Your task to perform on an android device: Open the calendar app, open the side menu, and click the "Day" option Image 0: 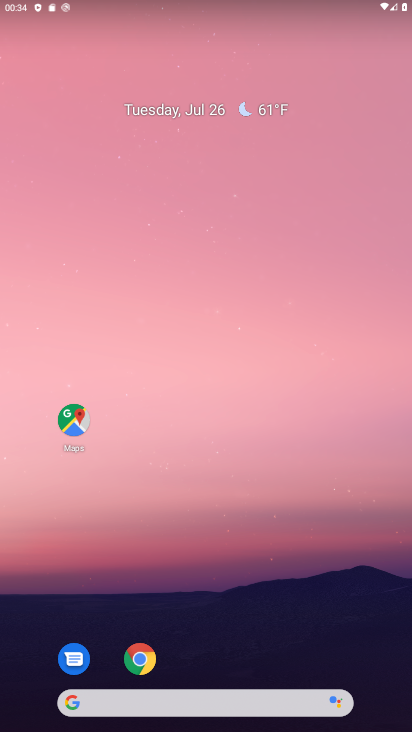
Step 0: drag from (244, 543) to (220, 49)
Your task to perform on an android device: Open the calendar app, open the side menu, and click the "Day" option Image 1: 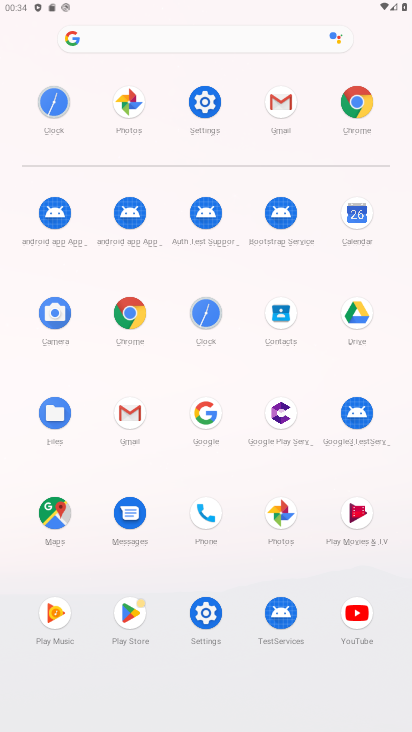
Step 1: click (361, 200)
Your task to perform on an android device: Open the calendar app, open the side menu, and click the "Day" option Image 2: 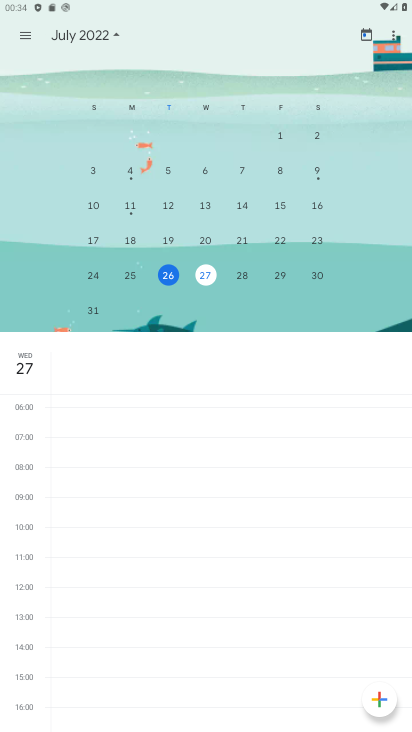
Step 2: drag from (110, 201) to (411, 245)
Your task to perform on an android device: Open the calendar app, open the side menu, and click the "Day" option Image 3: 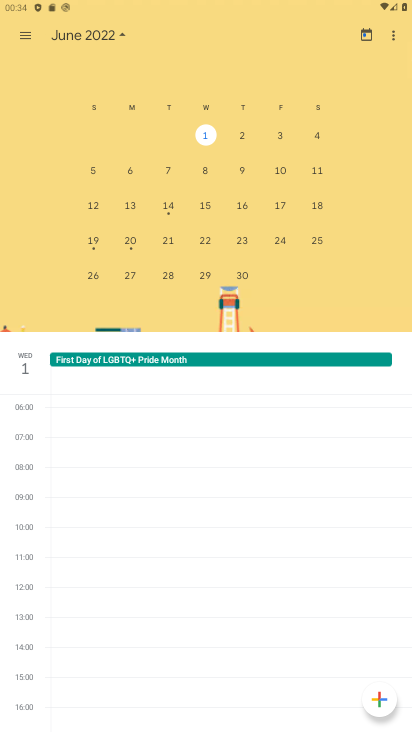
Step 3: drag from (286, 207) to (0, 9)
Your task to perform on an android device: Open the calendar app, open the side menu, and click the "Day" option Image 4: 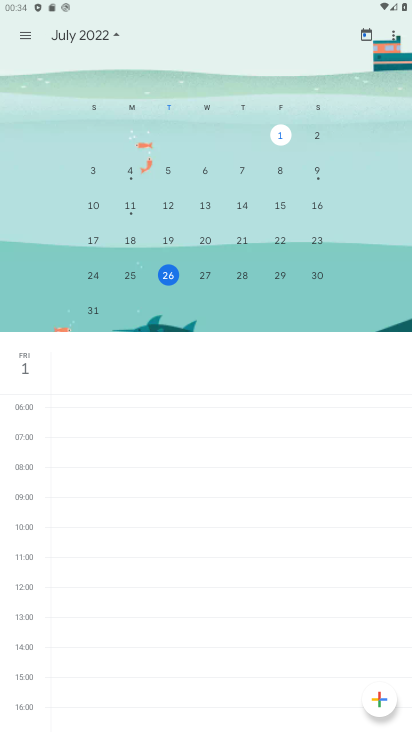
Step 4: click (14, 30)
Your task to perform on an android device: Open the calendar app, open the side menu, and click the "Day" option Image 5: 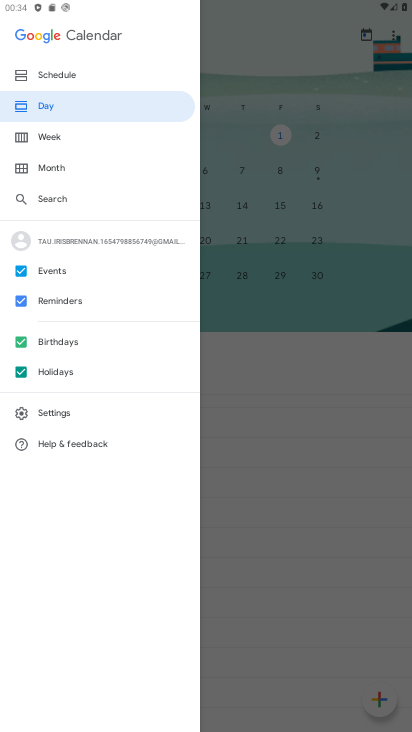
Step 5: click (66, 102)
Your task to perform on an android device: Open the calendar app, open the side menu, and click the "Day" option Image 6: 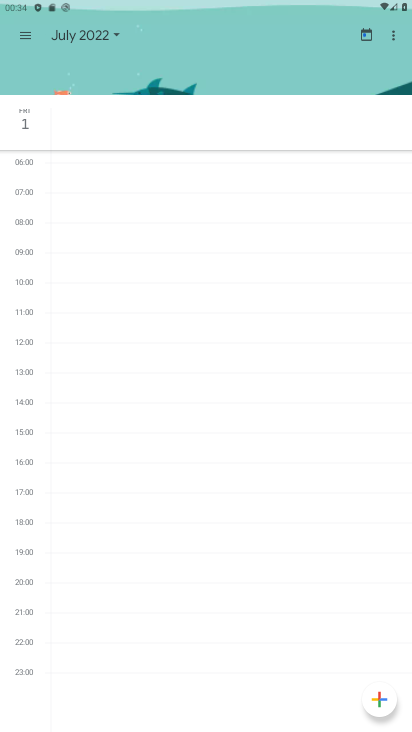
Step 6: task complete